Your task to perform on an android device: Is it going to rain today? Image 0: 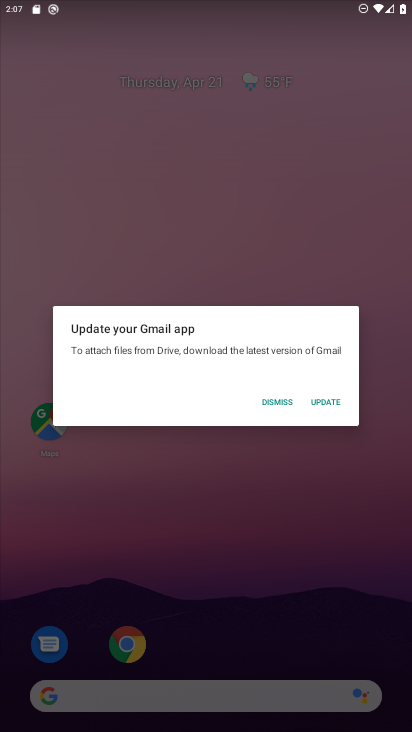
Step 0: press home button
Your task to perform on an android device: Is it going to rain today? Image 1: 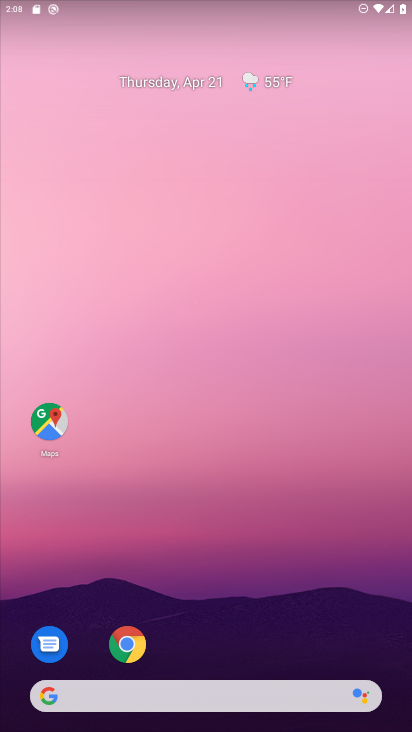
Step 1: drag from (238, 629) to (197, 276)
Your task to perform on an android device: Is it going to rain today? Image 2: 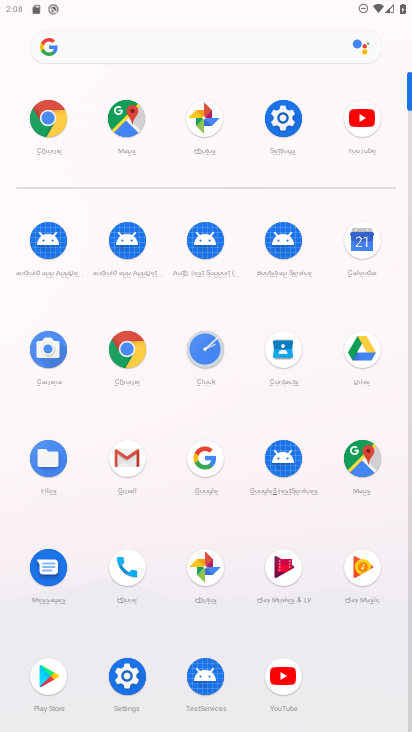
Step 2: drag from (316, 728) to (383, 637)
Your task to perform on an android device: Is it going to rain today? Image 3: 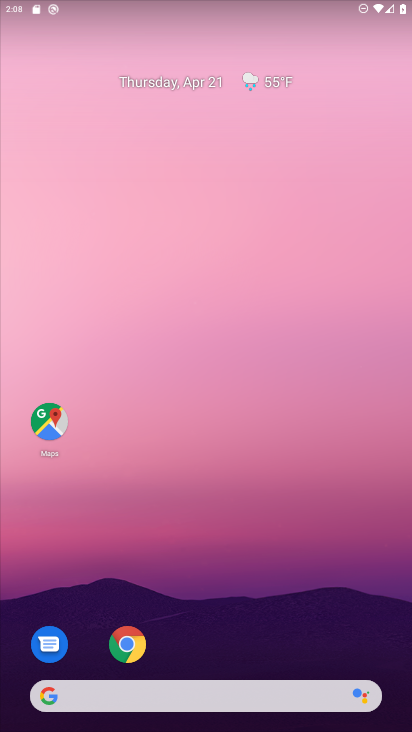
Step 3: click (52, 123)
Your task to perform on an android device: Is it going to rain today? Image 4: 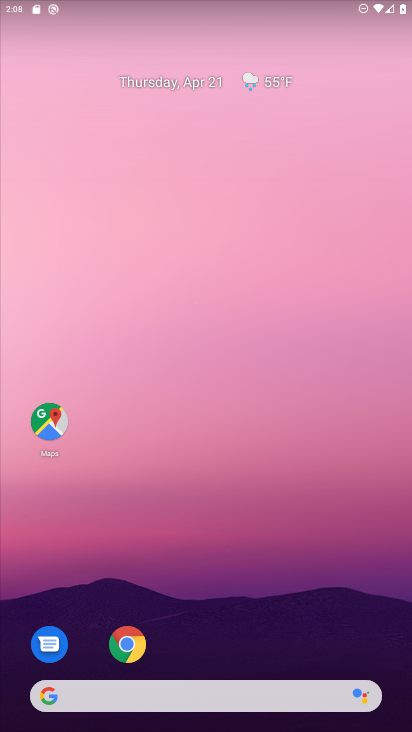
Step 4: click (141, 641)
Your task to perform on an android device: Is it going to rain today? Image 5: 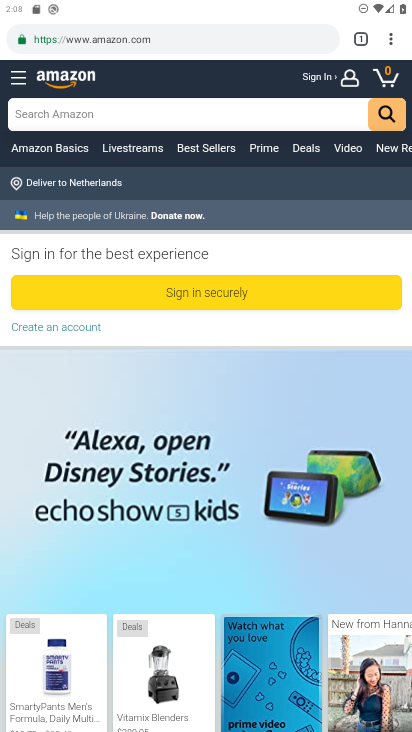
Step 5: click (220, 36)
Your task to perform on an android device: Is it going to rain today? Image 6: 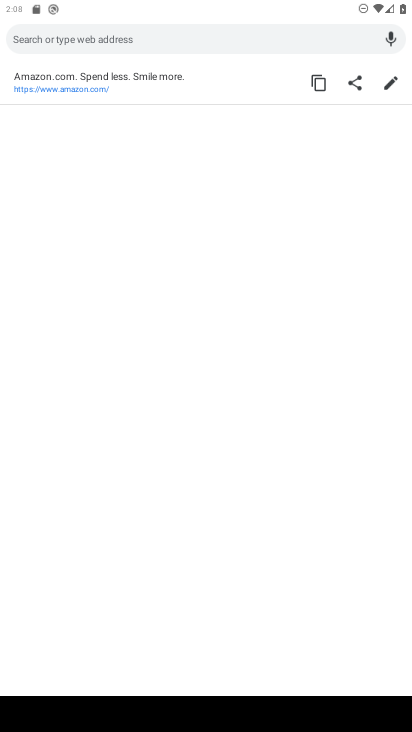
Step 6: type "Is it going to rain today?"
Your task to perform on an android device: Is it going to rain today? Image 7: 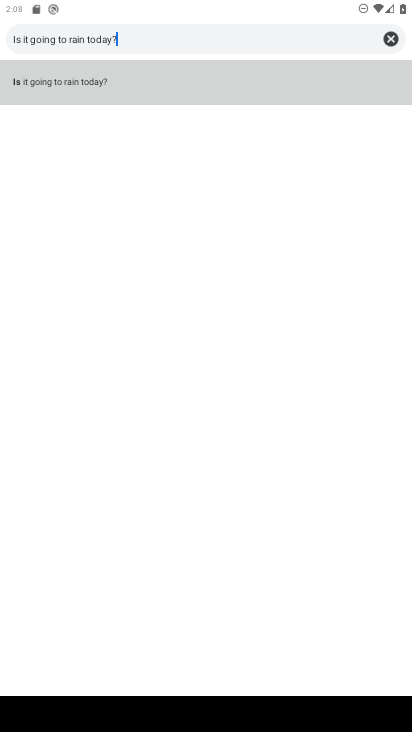
Step 7: click (48, 70)
Your task to perform on an android device: Is it going to rain today? Image 8: 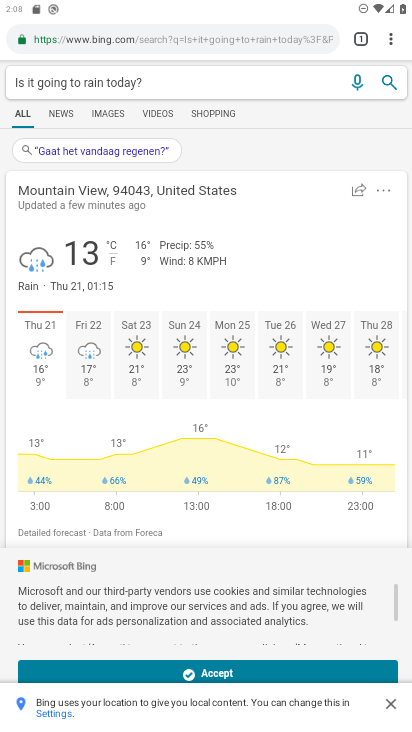
Step 8: task complete